Your task to perform on an android device: Go to Android settings Image 0: 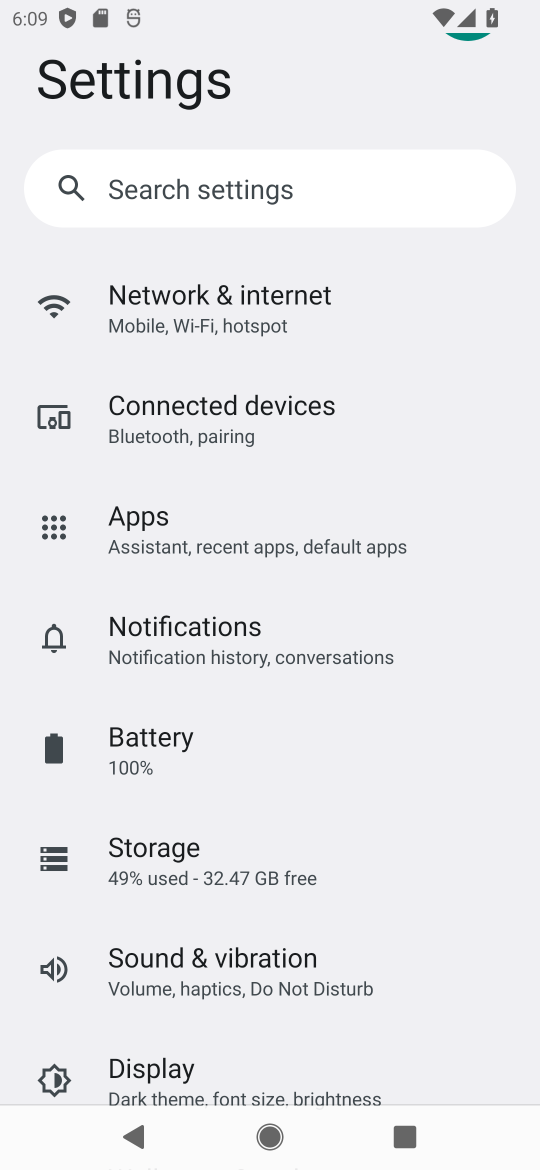
Step 0: drag from (393, 1034) to (409, 319)
Your task to perform on an android device: Go to Android settings Image 1: 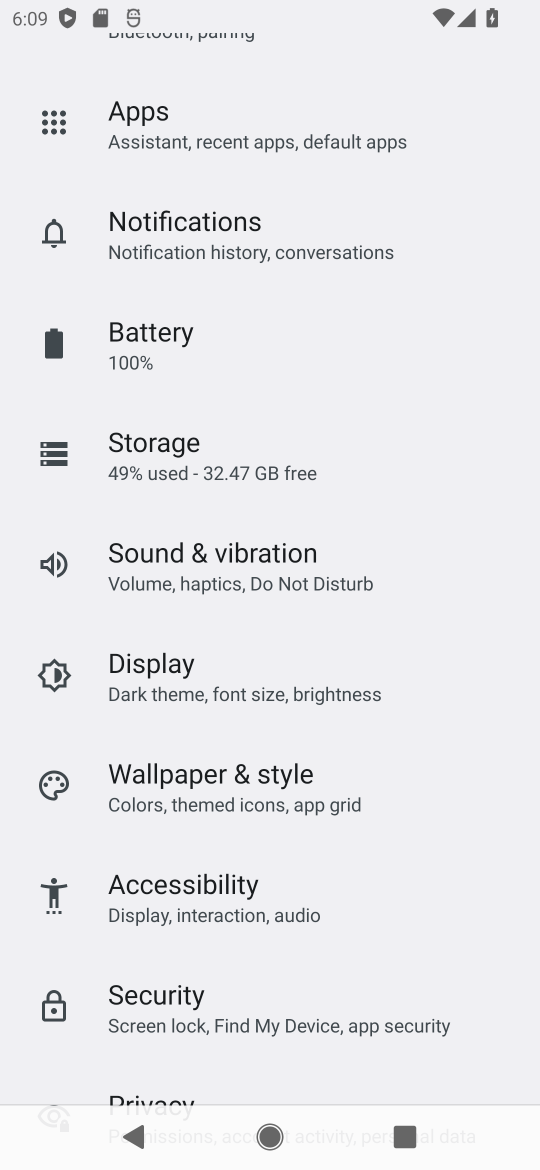
Step 1: drag from (460, 1021) to (413, 270)
Your task to perform on an android device: Go to Android settings Image 2: 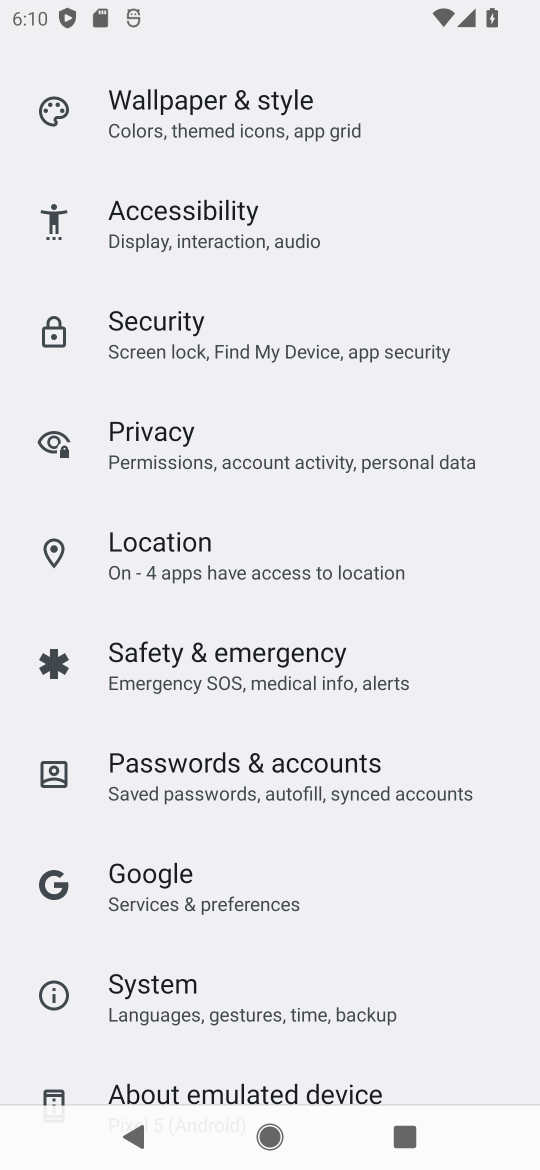
Step 2: drag from (446, 1031) to (406, 417)
Your task to perform on an android device: Go to Android settings Image 3: 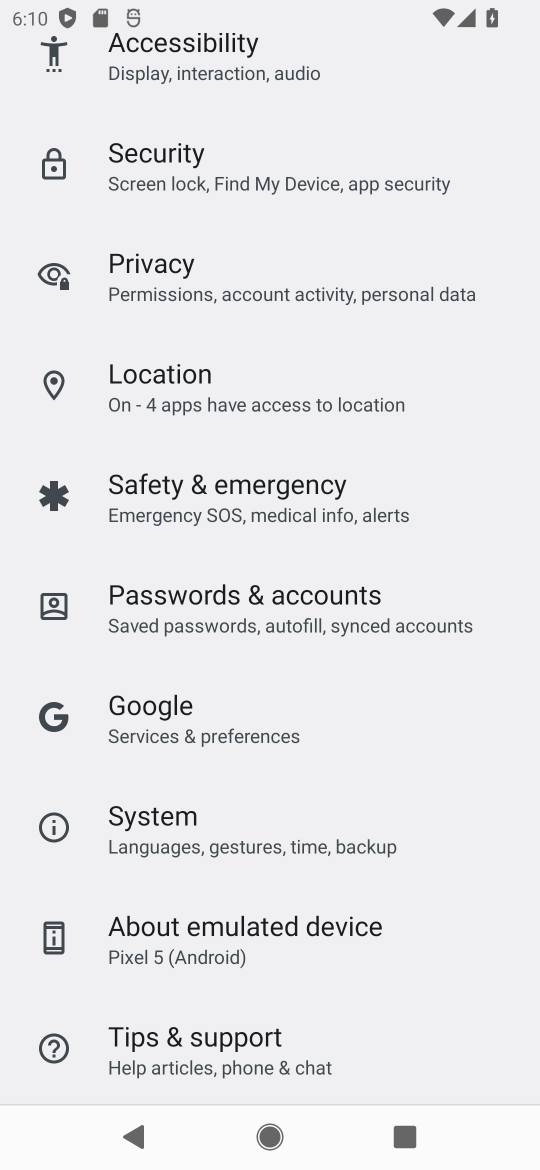
Step 3: click (200, 939)
Your task to perform on an android device: Go to Android settings Image 4: 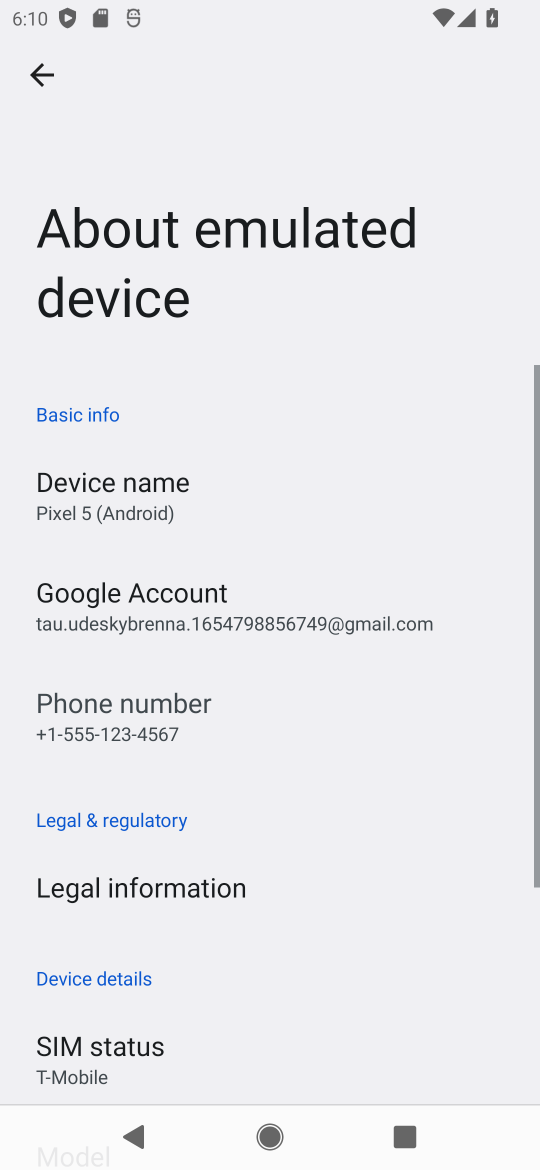
Step 4: click (200, 939)
Your task to perform on an android device: Go to Android settings Image 5: 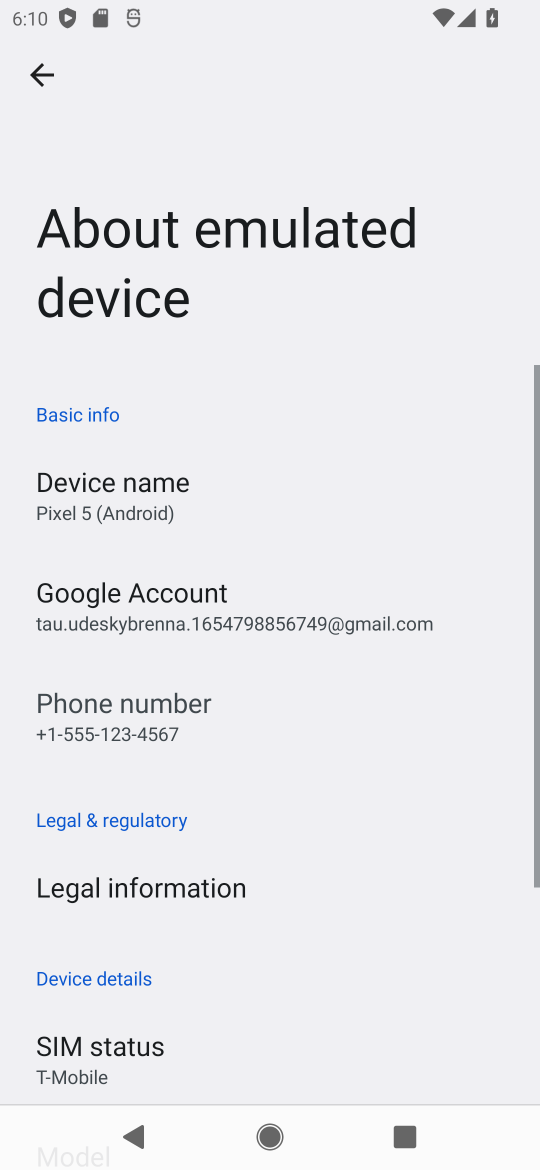
Step 5: task complete